Your task to perform on an android device: Empty the shopping cart on ebay.com. Add usb-c to usb-b to the cart on ebay.com, then select checkout. Image 0: 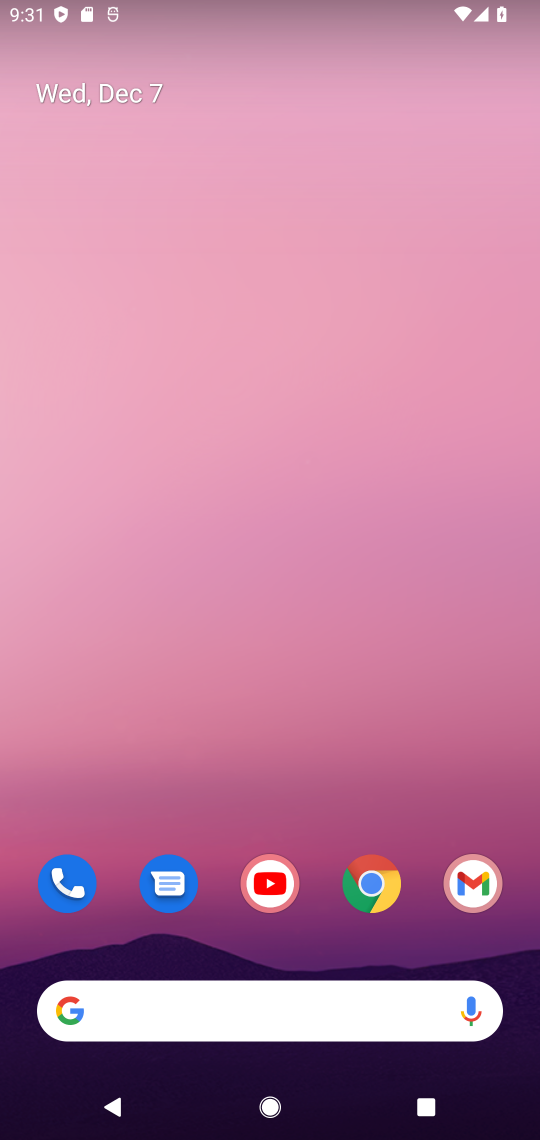
Step 0: press home button
Your task to perform on an android device: Empty the shopping cart on ebay.com. Add usb-c to usb-b to the cart on ebay.com, then select checkout. Image 1: 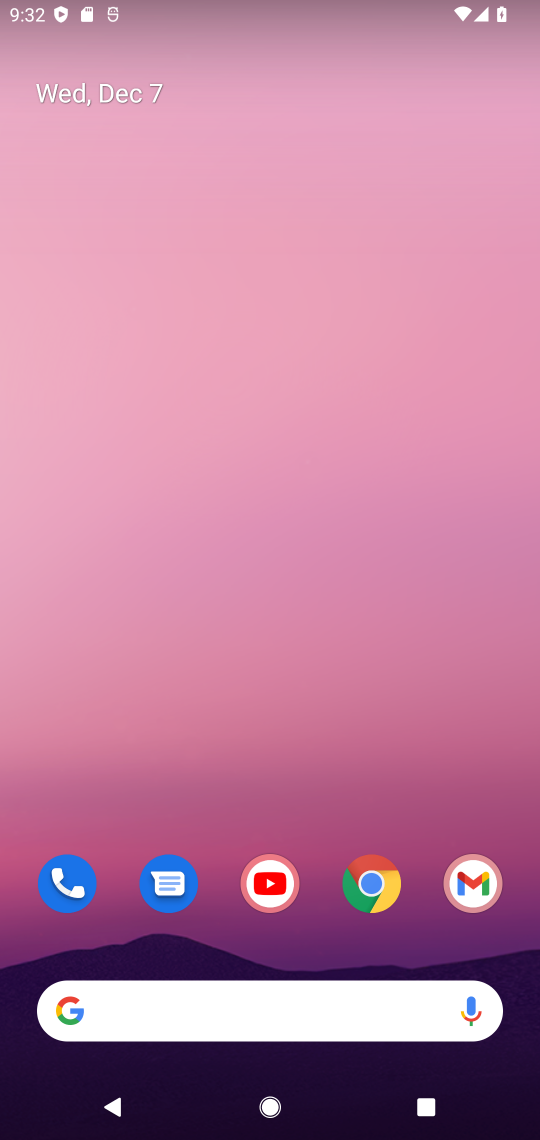
Step 1: drag from (346, 1004) to (332, 0)
Your task to perform on an android device: Empty the shopping cart on ebay.com. Add usb-c to usb-b to the cart on ebay.com, then select checkout. Image 2: 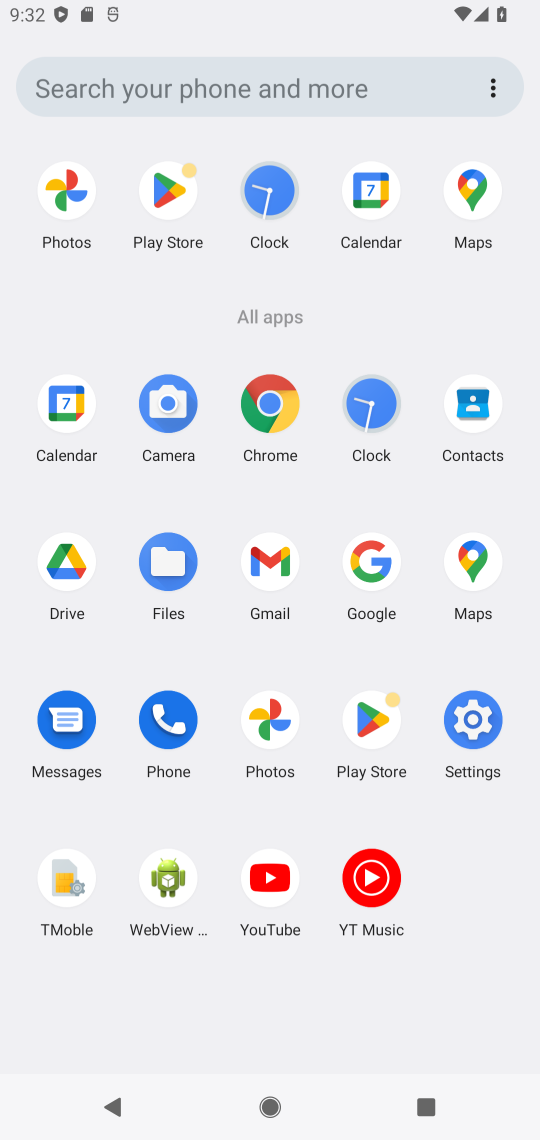
Step 2: click (368, 557)
Your task to perform on an android device: Empty the shopping cart on ebay.com. Add usb-c to usb-b to the cart on ebay.com, then select checkout. Image 3: 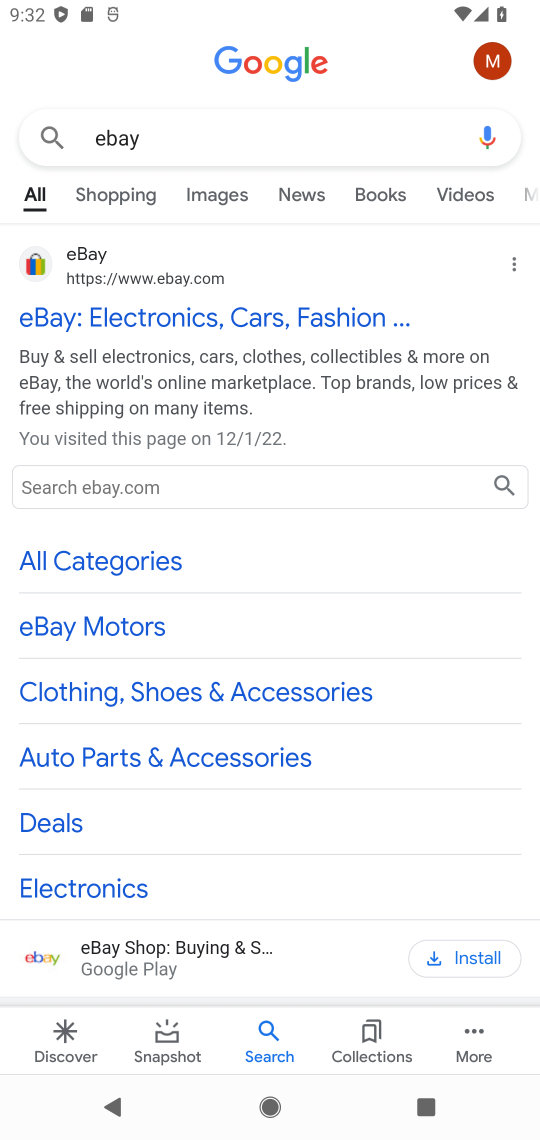
Step 3: click (250, 317)
Your task to perform on an android device: Empty the shopping cart on ebay.com. Add usb-c to usb-b to the cart on ebay.com, then select checkout. Image 4: 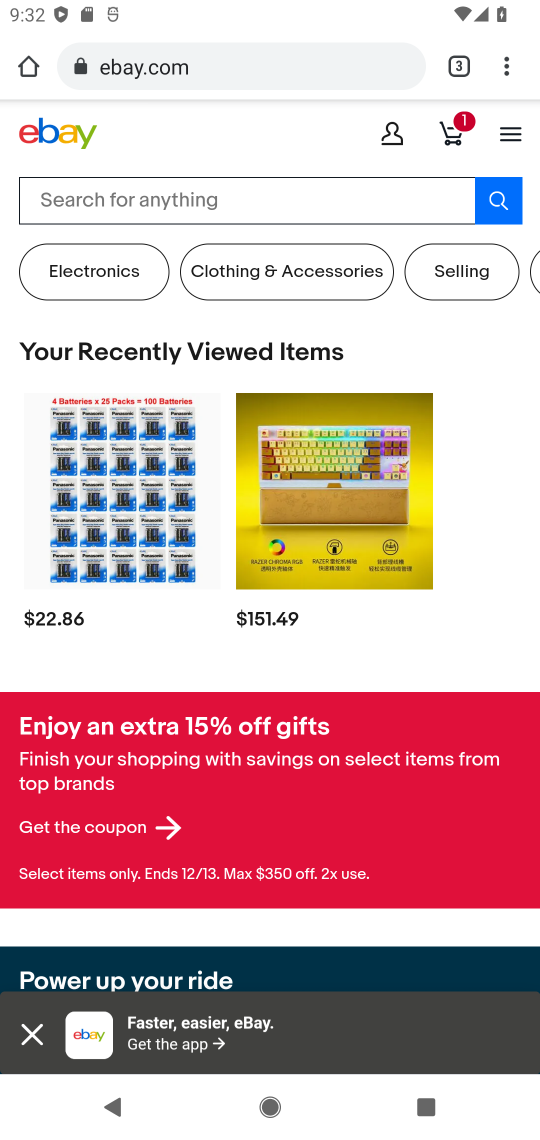
Step 4: click (440, 137)
Your task to perform on an android device: Empty the shopping cart on ebay.com. Add usb-c to usb-b to the cart on ebay.com, then select checkout. Image 5: 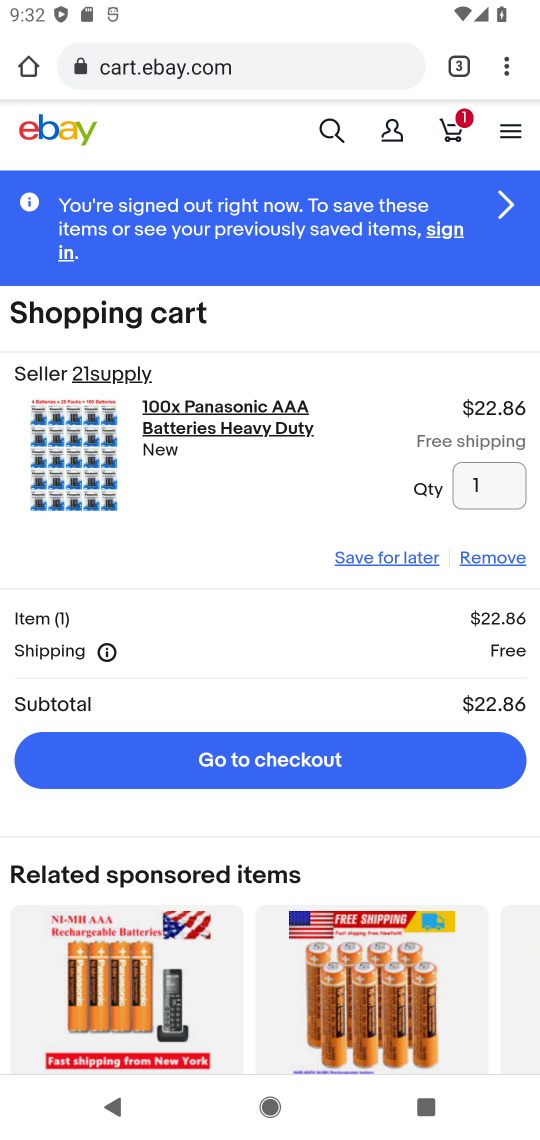
Step 5: click (485, 562)
Your task to perform on an android device: Empty the shopping cart on ebay.com. Add usb-c to usb-b to the cart on ebay.com, then select checkout. Image 6: 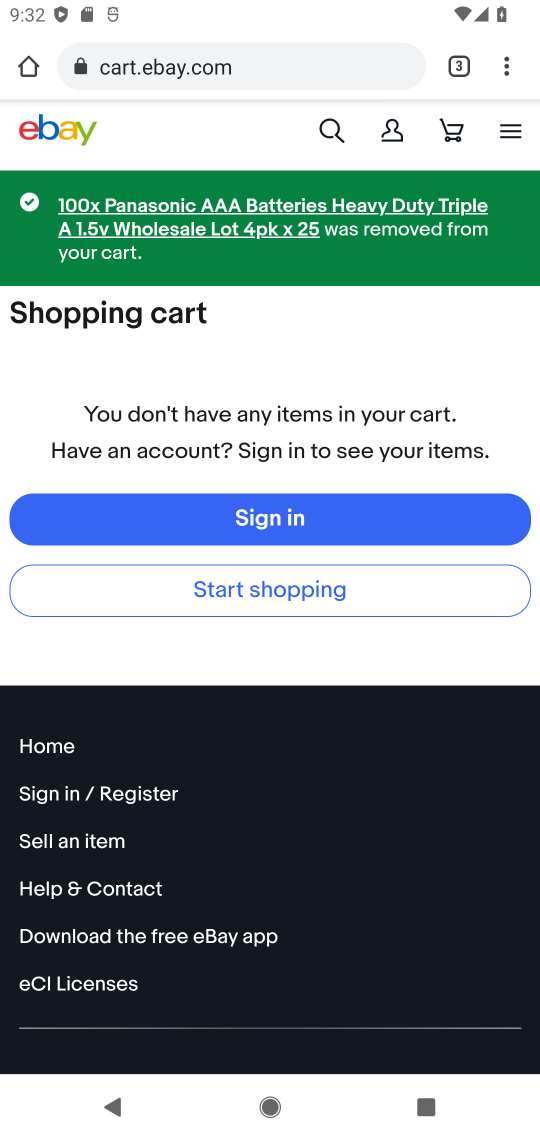
Step 6: click (333, 135)
Your task to perform on an android device: Empty the shopping cart on ebay.com. Add usb-c to usb-b to the cart on ebay.com, then select checkout. Image 7: 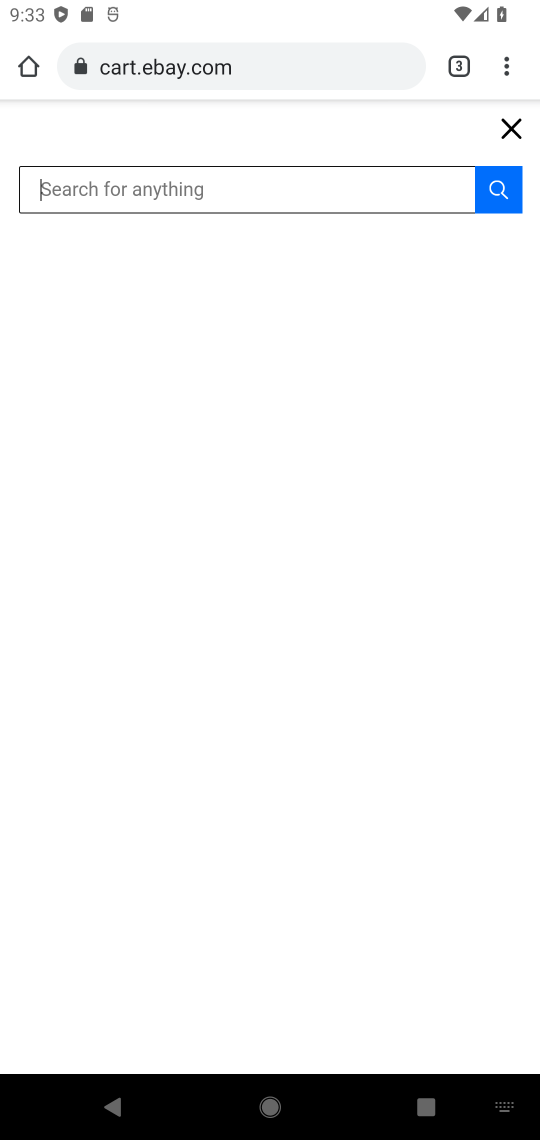
Step 7: type "usb-c to usb-b"
Your task to perform on an android device: Empty the shopping cart on ebay.com. Add usb-c to usb-b to the cart on ebay.com, then select checkout. Image 8: 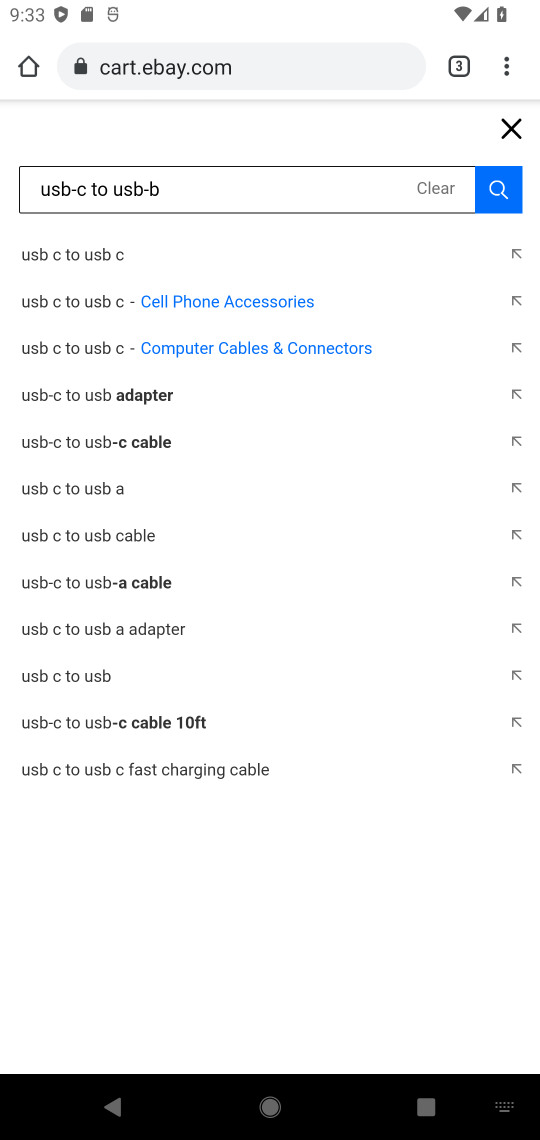
Step 8: click (79, 250)
Your task to perform on an android device: Empty the shopping cart on ebay.com. Add usb-c to usb-b to the cart on ebay.com, then select checkout. Image 9: 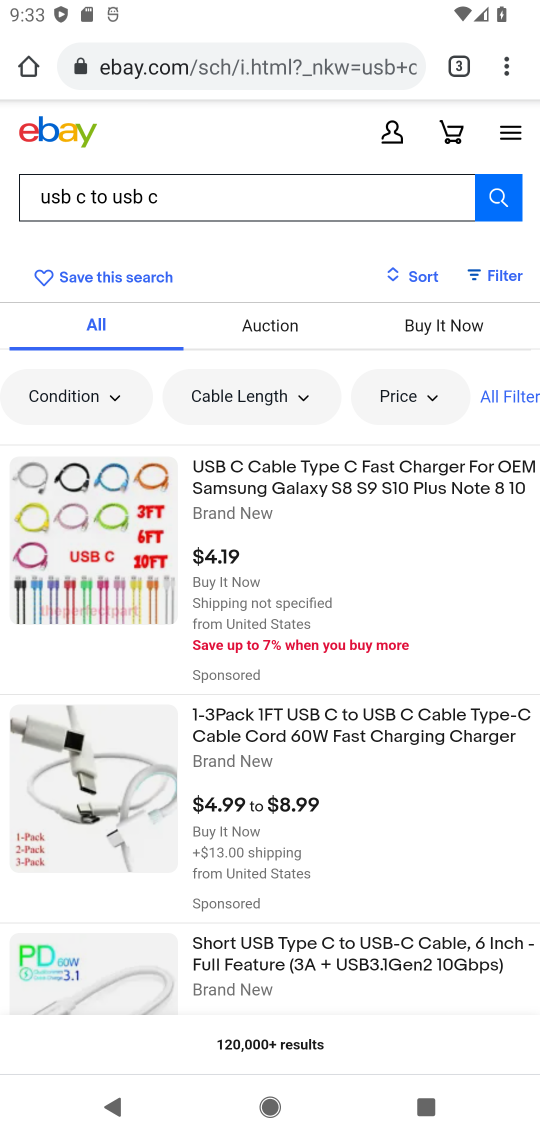
Step 9: click (234, 494)
Your task to perform on an android device: Empty the shopping cart on ebay.com. Add usb-c to usb-b to the cart on ebay.com, then select checkout. Image 10: 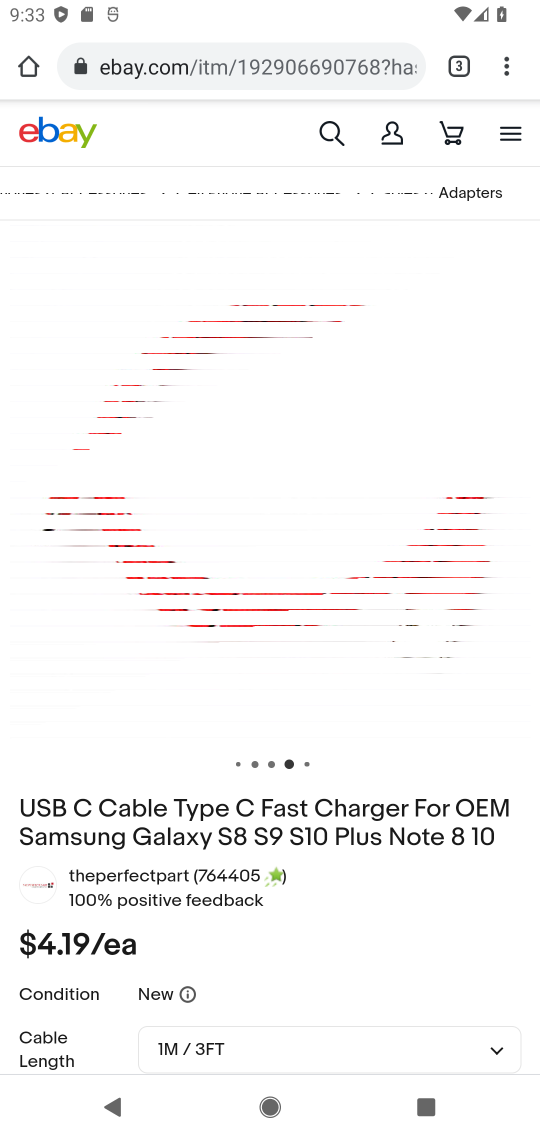
Step 10: drag from (379, 938) to (356, 526)
Your task to perform on an android device: Empty the shopping cart on ebay.com. Add usb-c to usb-b to the cart on ebay.com, then select checkout. Image 11: 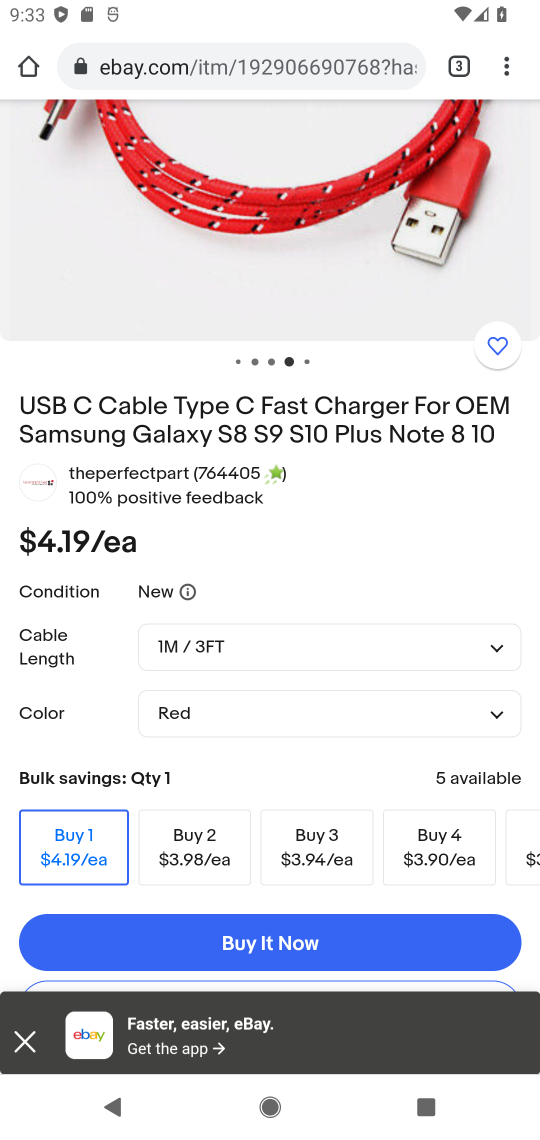
Step 11: drag from (338, 939) to (328, 489)
Your task to perform on an android device: Empty the shopping cart on ebay.com. Add usb-c to usb-b to the cart on ebay.com, then select checkout. Image 12: 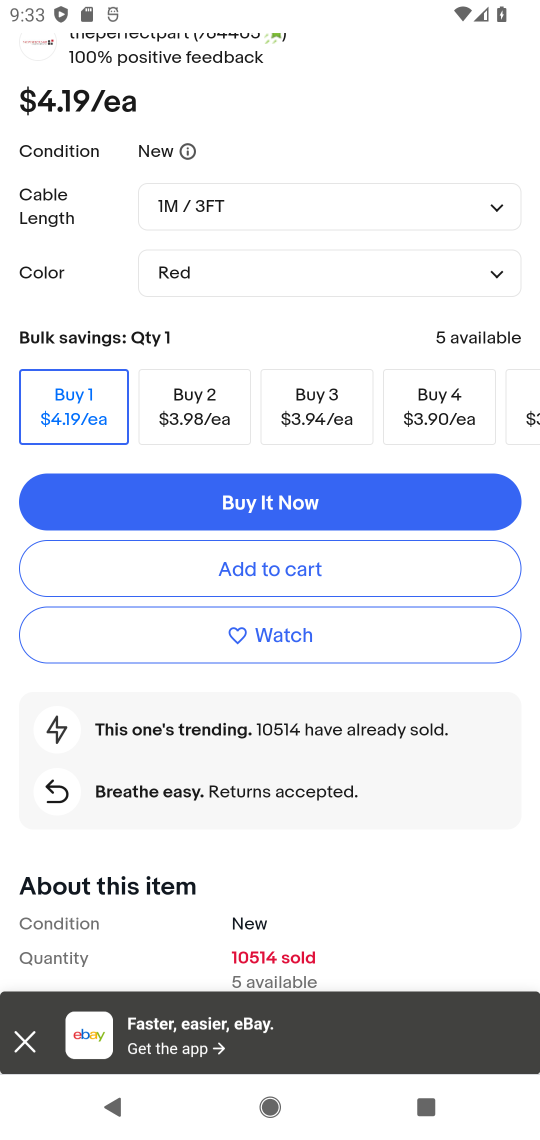
Step 12: click (241, 565)
Your task to perform on an android device: Empty the shopping cart on ebay.com. Add usb-c to usb-b to the cart on ebay.com, then select checkout. Image 13: 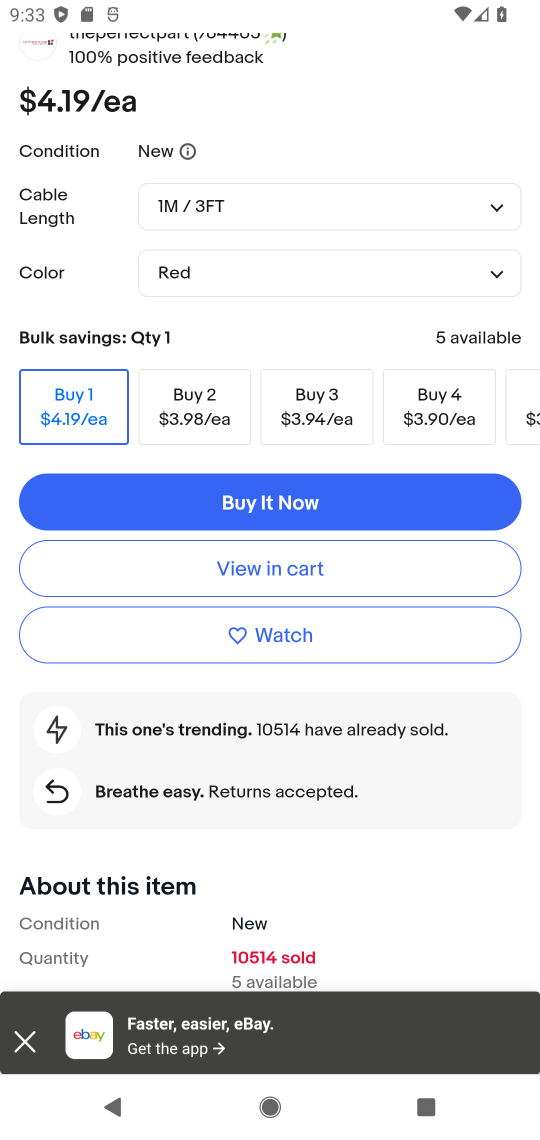
Step 13: click (247, 559)
Your task to perform on an android device: Empty the shopping cart on ebay.com. Add usb-c to usb-b to the cart on ebay.com, then select checkout. Image 14: 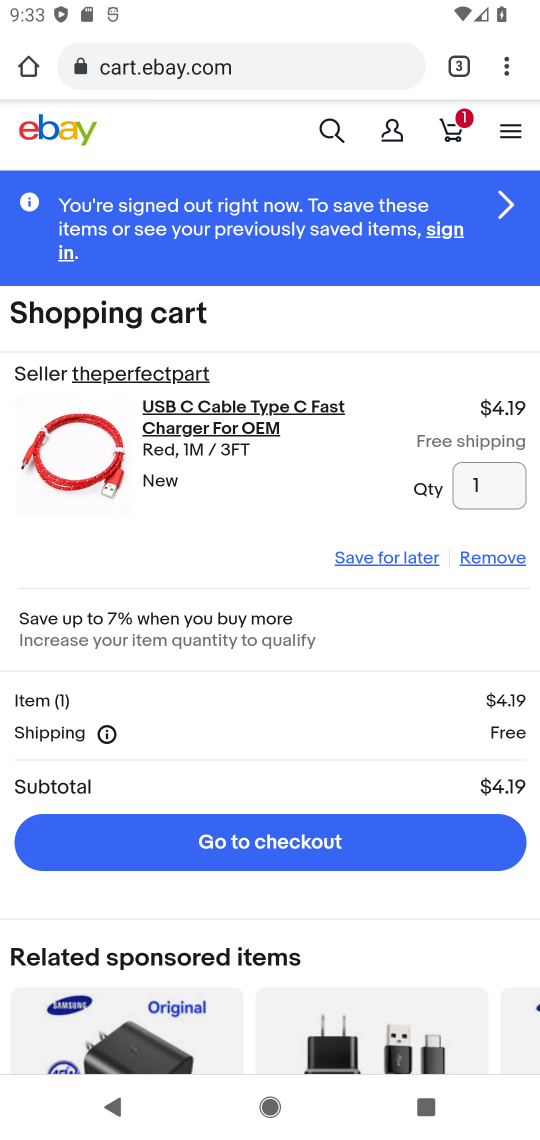
Step 14: click (258, 849)
Your task to perform on an android device: Empty the shopping cart on ebay.com. Add usb-c to usb-b to the cart on ebay.com, then select checkout. Image 15: 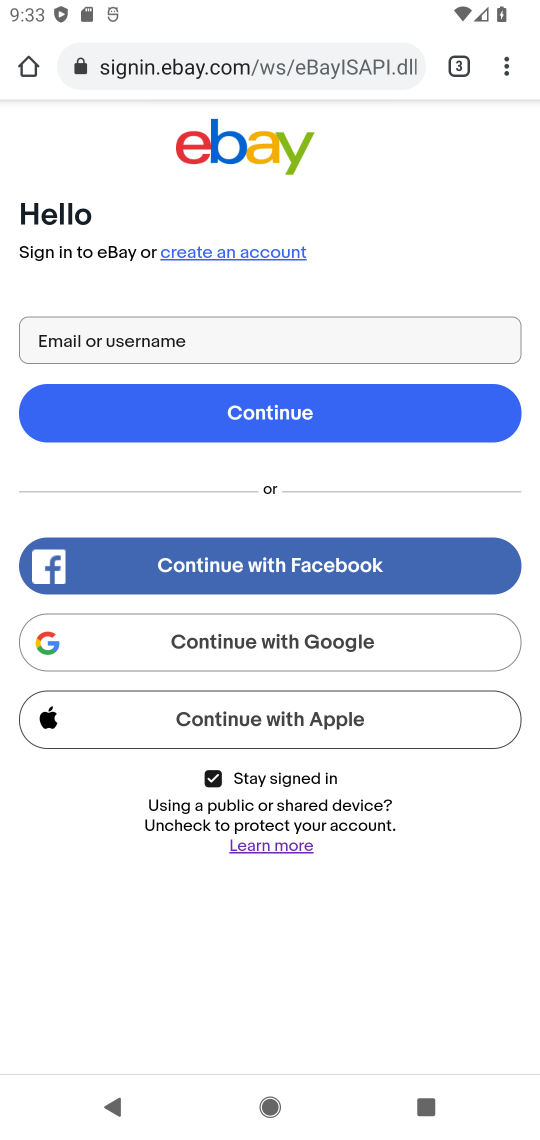
Step 15: task complete